Your task to perform on an android device: open the mobile data screen to see how much data has been used Image 0: 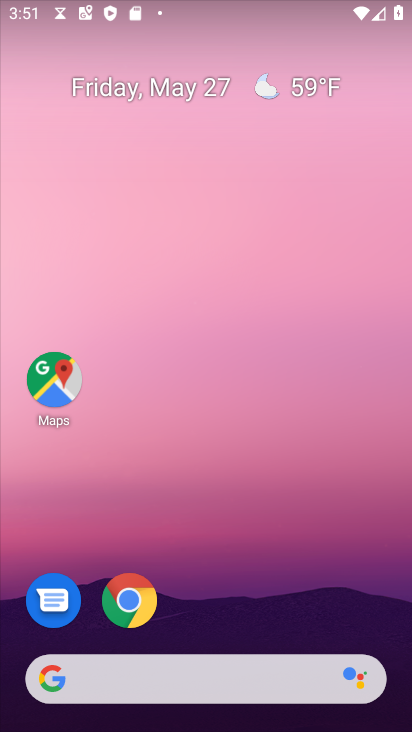
Step 0: drag from (219, 584) to (267, 176)
Your task to perform on an android device: open the mobile data screen to see how much data has been used Image 1: 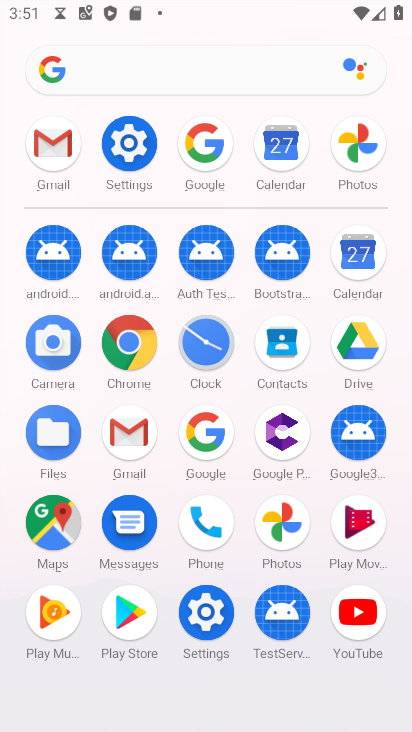
Step 1: click (130, 144)
Your task to perform on an android device: open the mobile data screen to see how much data has been used Image 2: 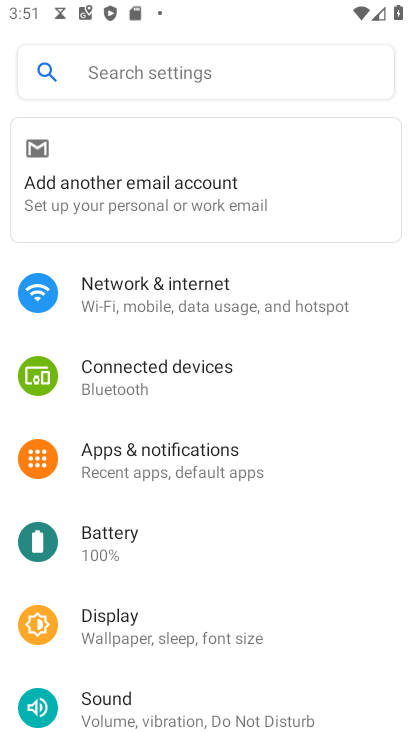
Step 2: click (157, 311)
Your task to perform on an android device: open the mobile data screen to see how much data has been used Image 3: 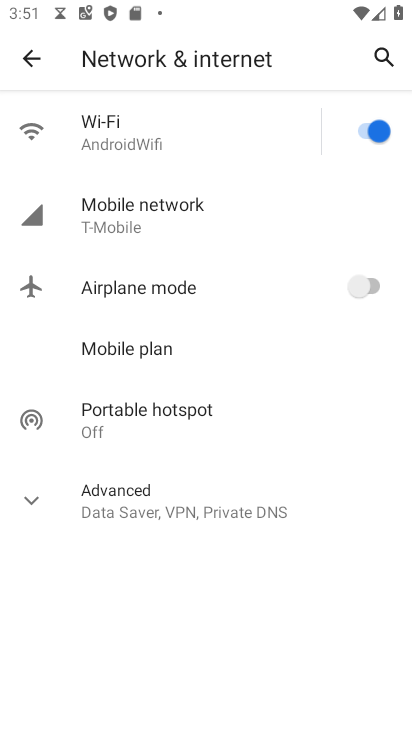
Step 3: click (142, 206)
Your task to perform on an android device: open the mobile data screen to see how much data has been used Image 4: 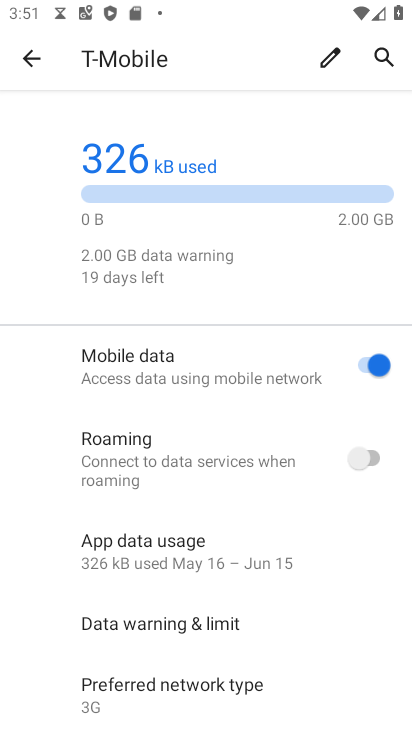
Step 4: task complete